Your task to perform on an android device: Open the calendar and show me this week's events? Image 0: 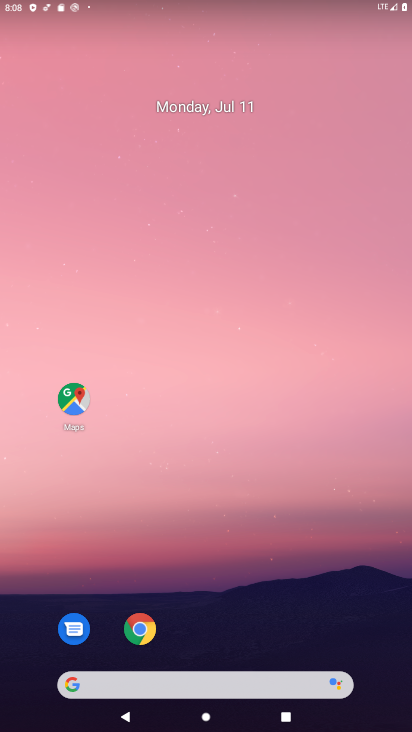
Step 0: drag from (222, 660) to (323, 34)
Your task to perform on an android device: Open the calendar and show me this week's events? Image 1: 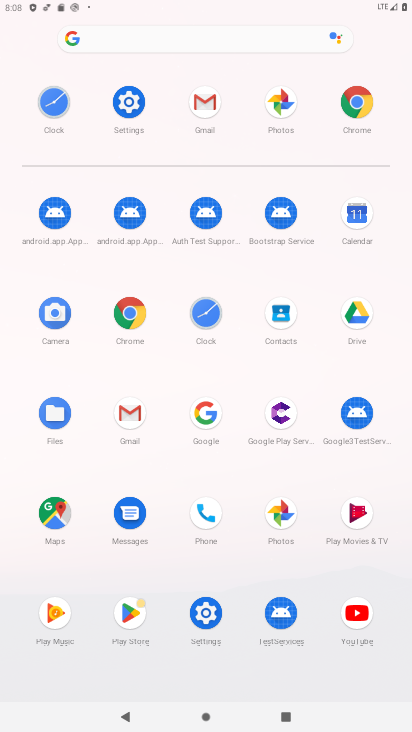
Step 1: click (356, 225)
Your task to perform on an android device: Open the calendar and show me this week's events? Image 2: 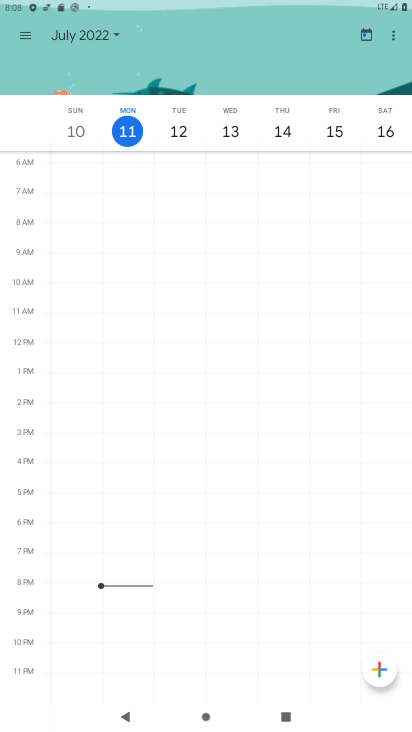
Step 2: click (27, 44)
Your task to perform on an android device: Open the calendar and show me this week's events? Image 3: 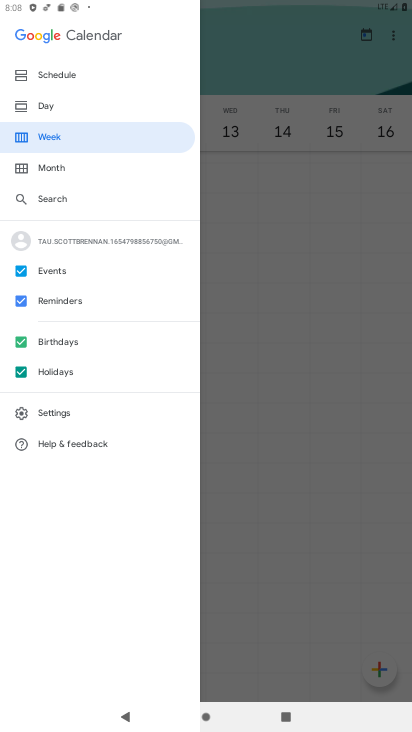
Step 3: click (85, 145)
Your task to perform on an android device: Open the calendar and show me this week's events? Image 4: 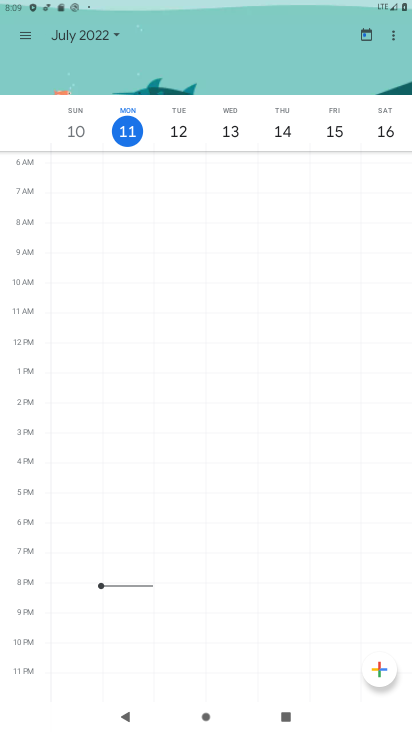
Step 4: task complete